Your task to perform on an android device: Open network settings Image 0: 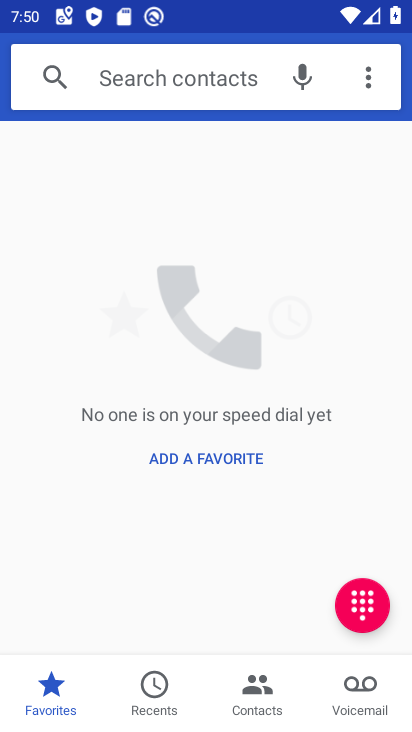
Step 0: press home button
Your task to perform on an android device: Open network settings Image 1: 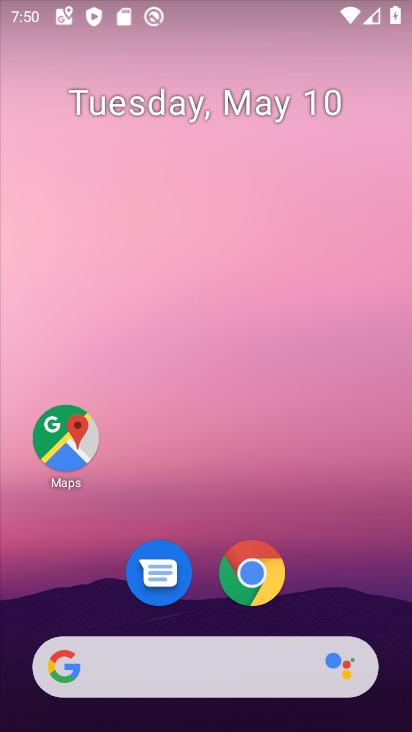
Step 1: drag from (375, 584) to (330, 139)
Your task to perform on an android device: Open network settings Image 2: 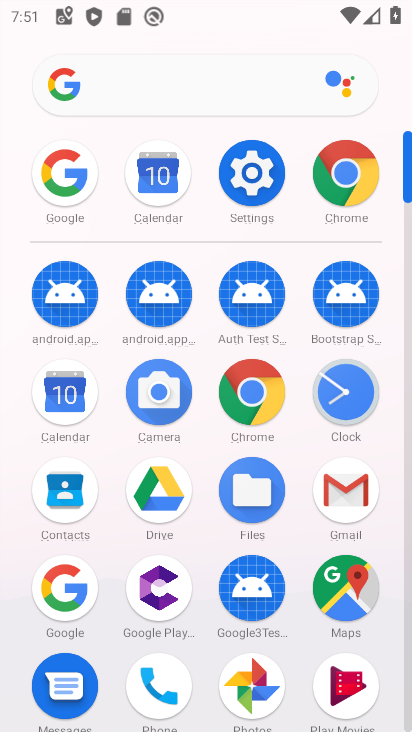
Step 2: click (261, 179)
Your task to perform on an android device: Open network settings Image 3: 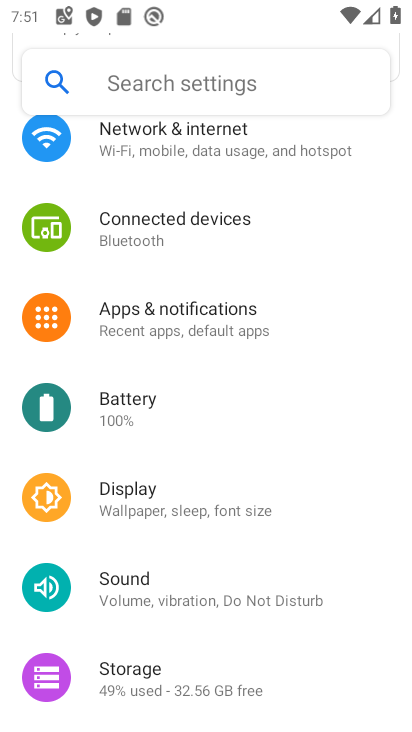
Step 3: drag from (282, 187) to (303, 552)
Your task to perform on an android device: Open network settings Image 4: 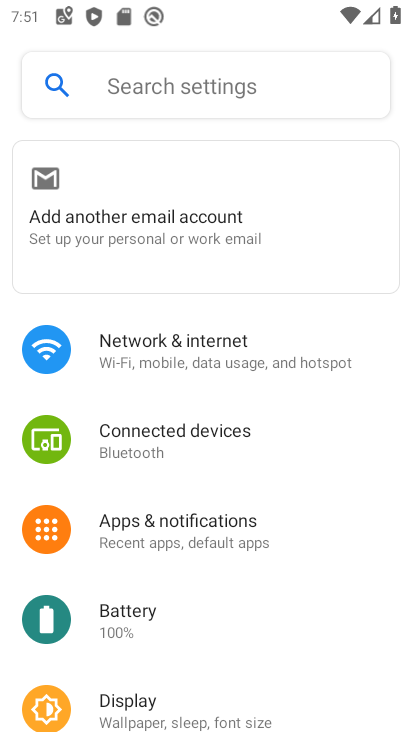
Step 4: click (236, 365)
Your task to perform on an android device: Open network settings Image 5: 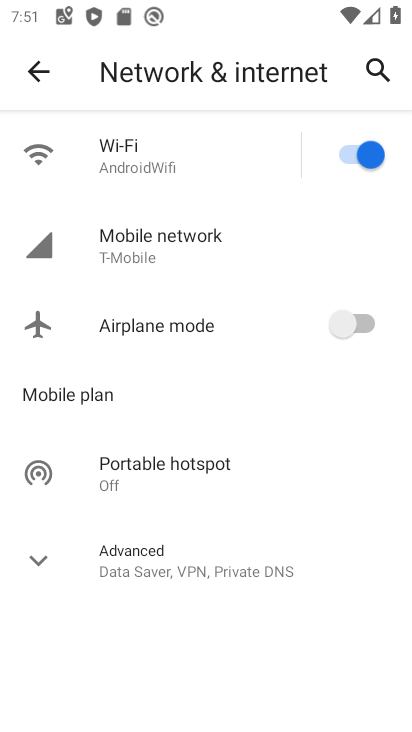
Step 5: click (182, 247)
Your task to perform on an android device: Open network settings Image 6: 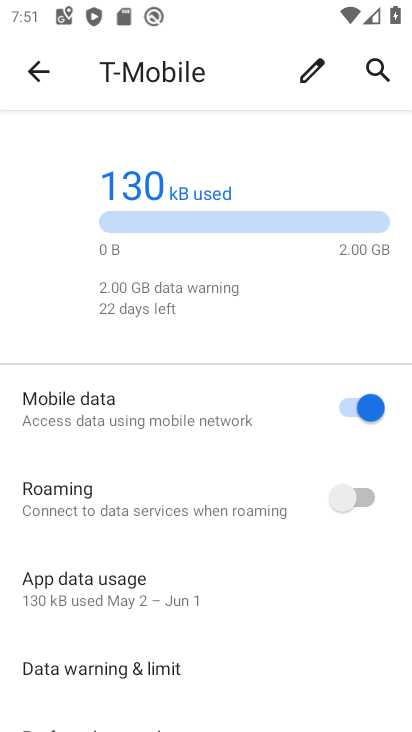
Step 6: task complete